Your task to perform on an android device: Open Youtube and go to "Your channel" Image 0: 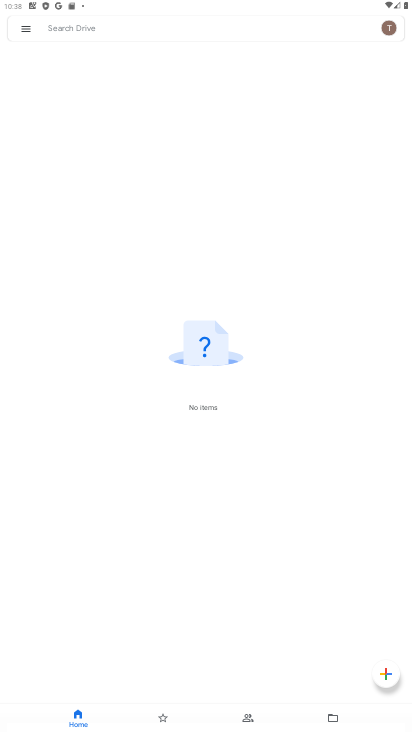
Step 0: press home button
Your task to perform on an android device: Open Youtube and go to "Your channel" Image 1: 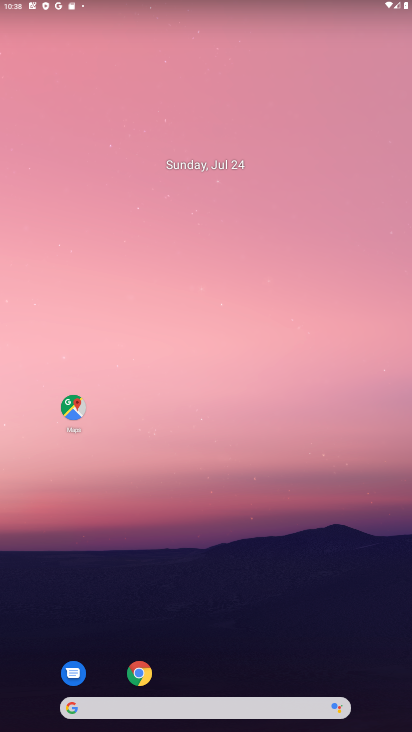
Step 1: drag from (6, 553) to (22, 81)
Your task to perform on an android device: Open Youtube and go to "Your channel" Image 2: 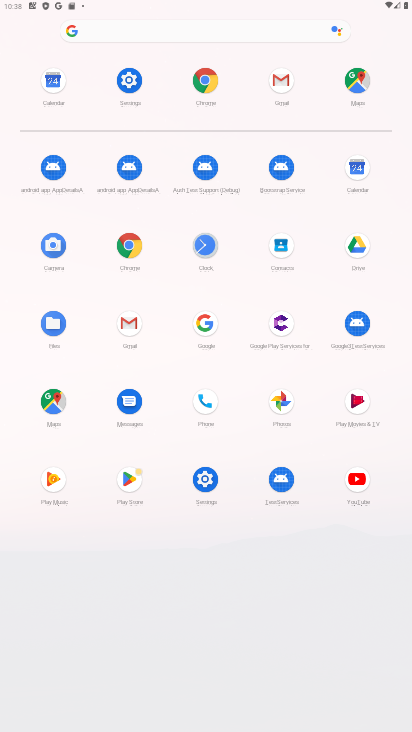
Step 2: click (356, 484)
Your task to perform on an android device: Open Youtube and go to "Your channel" Image 3: 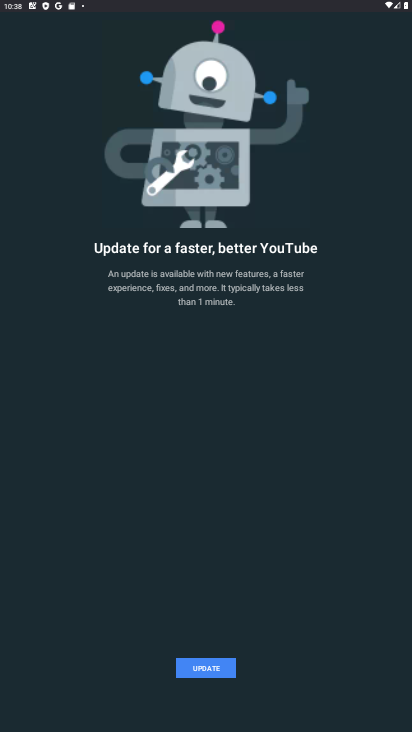
Step 3: click (186, 666)
Your task to perform on an android device: Open Youtube and go to "Your channel" Image 4: 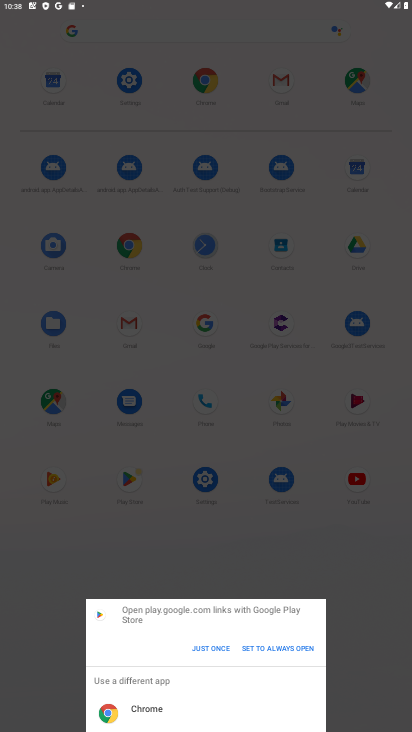
Step 4: click (203, 641)
Your task to perform on an android device: Open Youtube and go to "Your channel" Image 5: 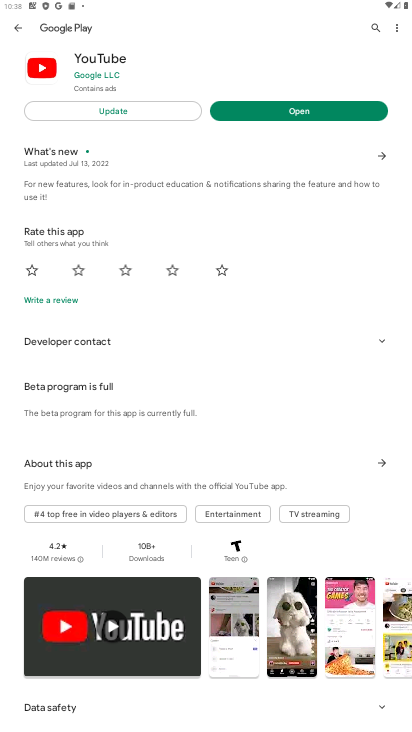
Step 5: click (265, 127)
Your task to perform on an android device: Open Youtube and go to "Your channel" Image 6: 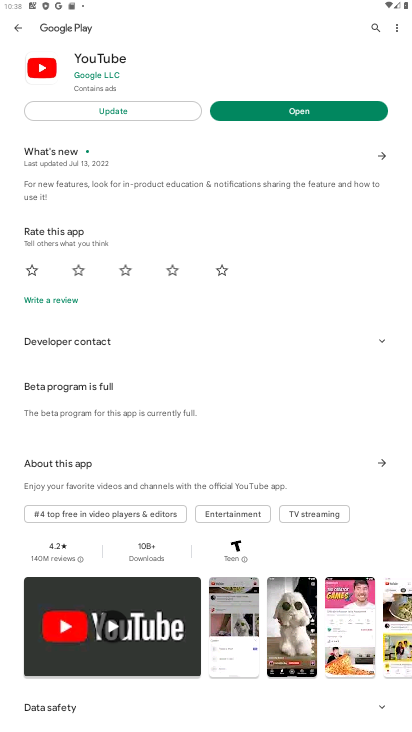
Step 6: click (266, 104)
Your task to perform on an android device: Open Youtube and go to "Your channel" Image 7: 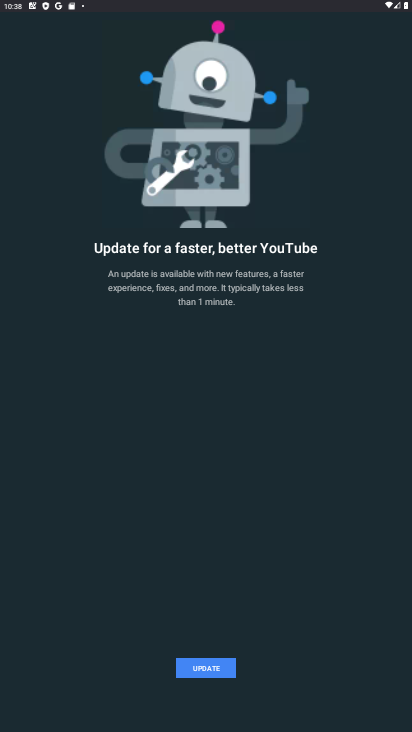
Step 7: task complete